Your task to perform on an android device: Go to sound settings Image 0: 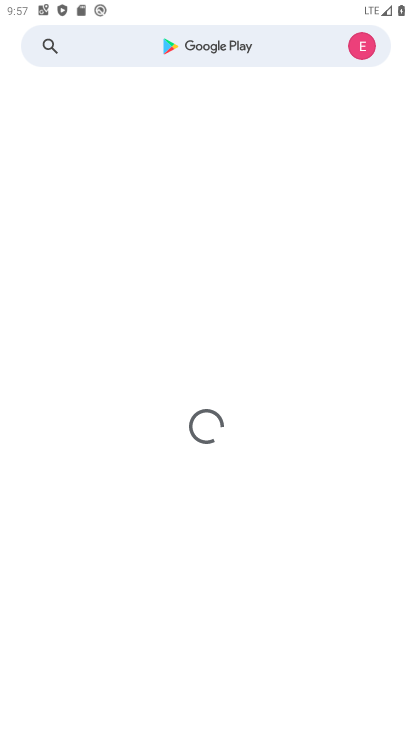
Step 0: press home button
Your task to perform on an android device: Go to sound settings Image 1: 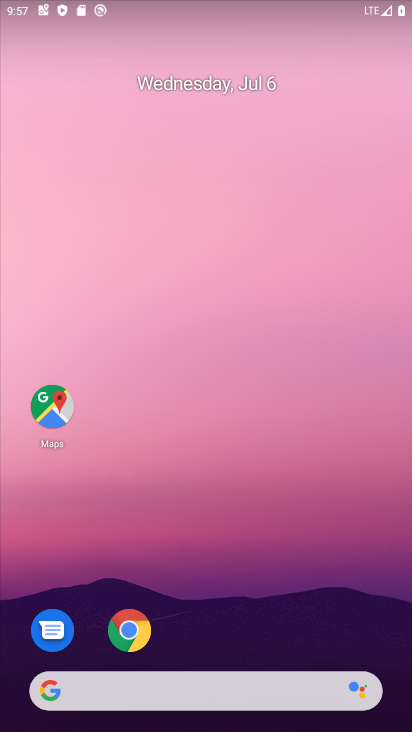
Step 1: drag from (356, 503) to (295, 9)
Your task to perform on an android device: Go to sound settings Image 2: 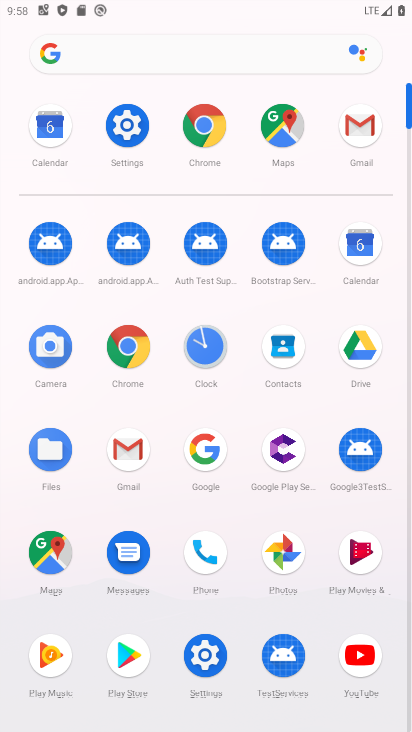
Step 2: click (206, 654)
Your task to perform on an android device: Go to sound settings Image 3: 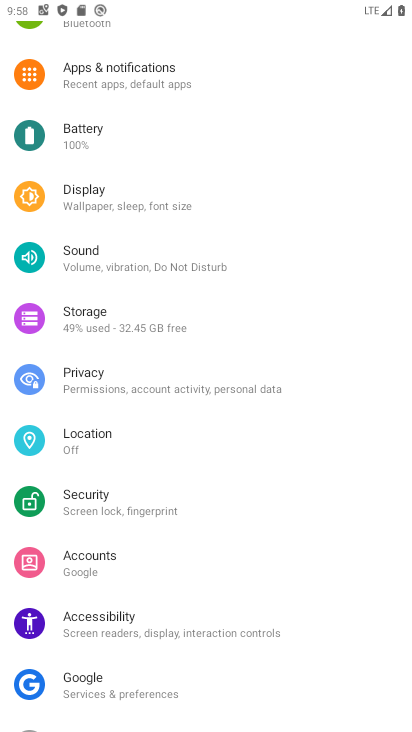
Step 3: click (81, 253)
Your task to perform on an android device: Go to sound settings Image 4: 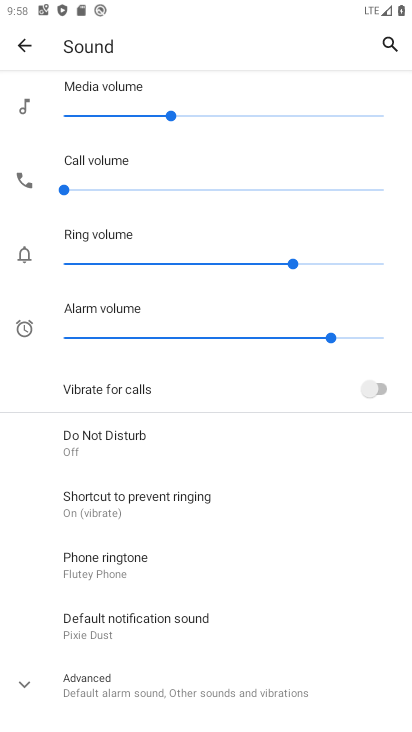
Step 4: drag from (255, 575) to (240, 288)
Your task to perform on an android device: Go to sound settings Image 5: 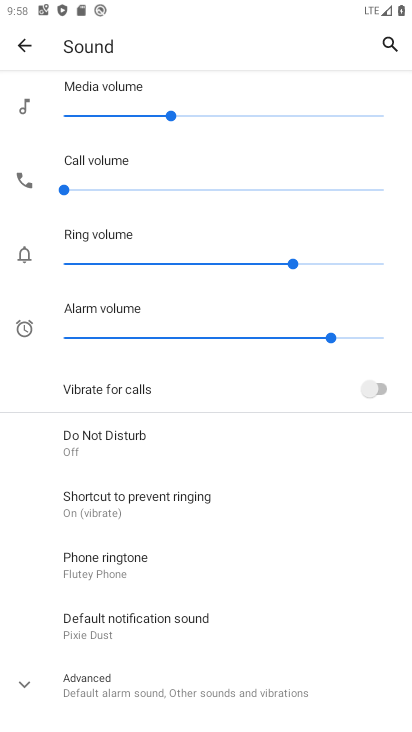
Step 5: click (27, 682)
Your task to perform on an android device: Go to sound settings Image 6: 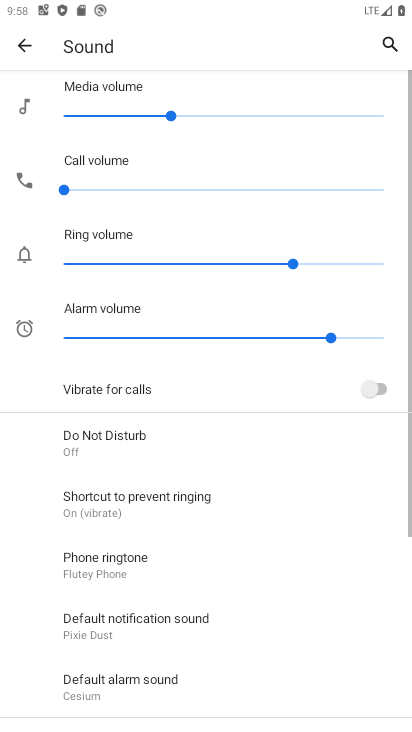
Step 6: task complete